Your task to perform on an android device: Search for alienware area 51 on ebay, select the first entry, and add it to the cart. Image 0: 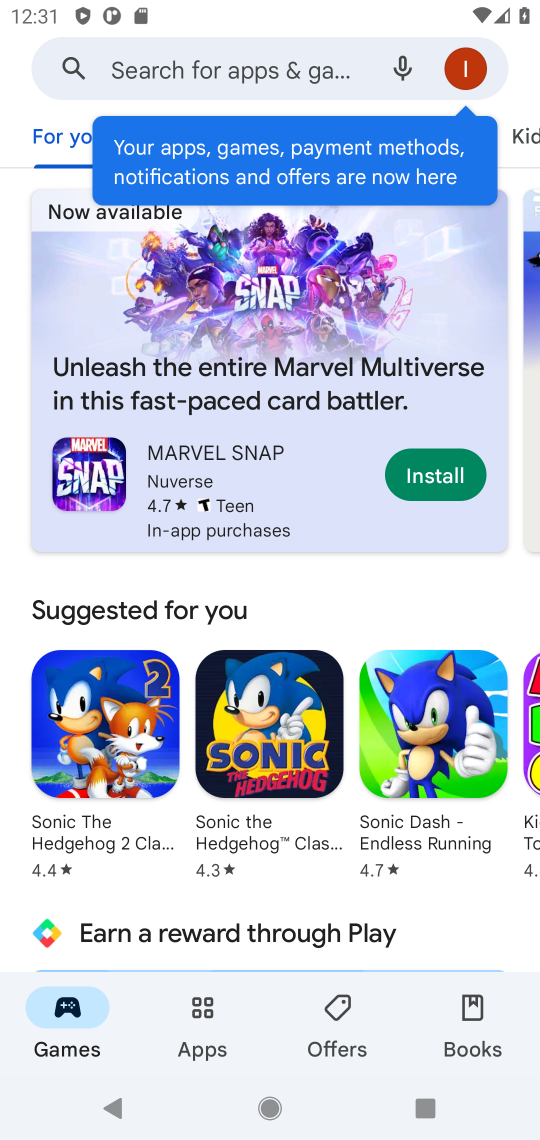
Step 0: press home button
Your task to perform on an android device: Search for alienware area 51 on ebay, select the first entry, and add it to the cart. Image 1: 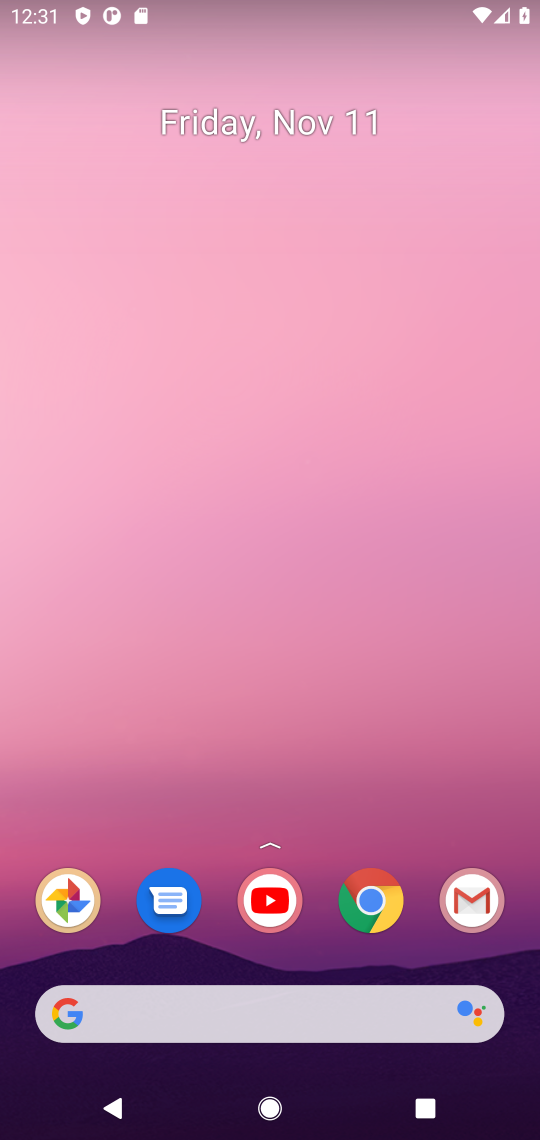
Step 1: click (387, 893)
Your task to perform on an android device: Search for alienware area 51 on ebay, select the first entry, and add it to the cart. Image 2: 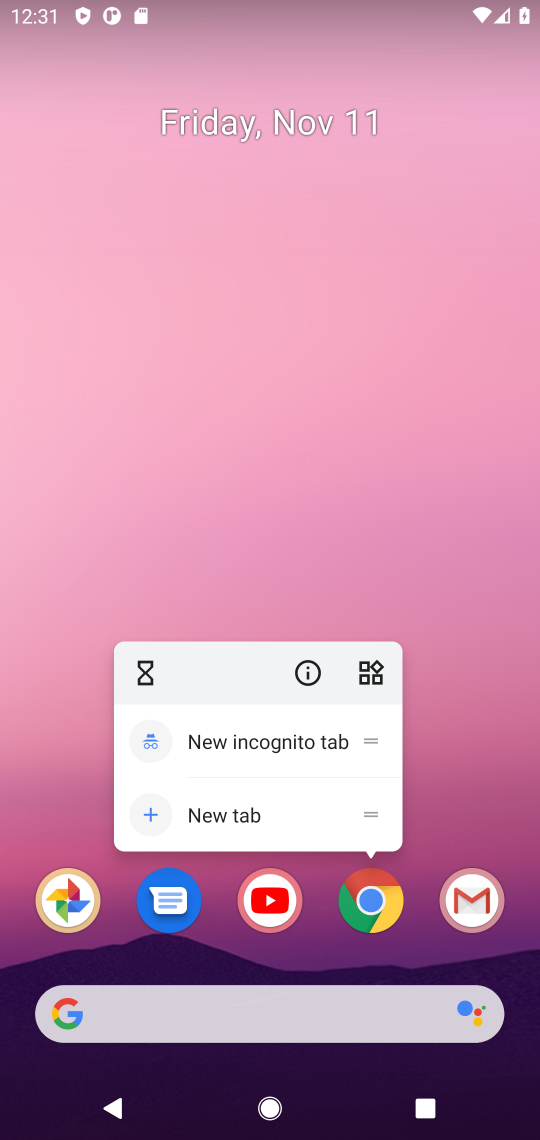
Step 2: click (371, 899)
Your task to perform on an android device: Search for alienware area 51 on ebay, select the first entry, and add it to the cart. Image 3: 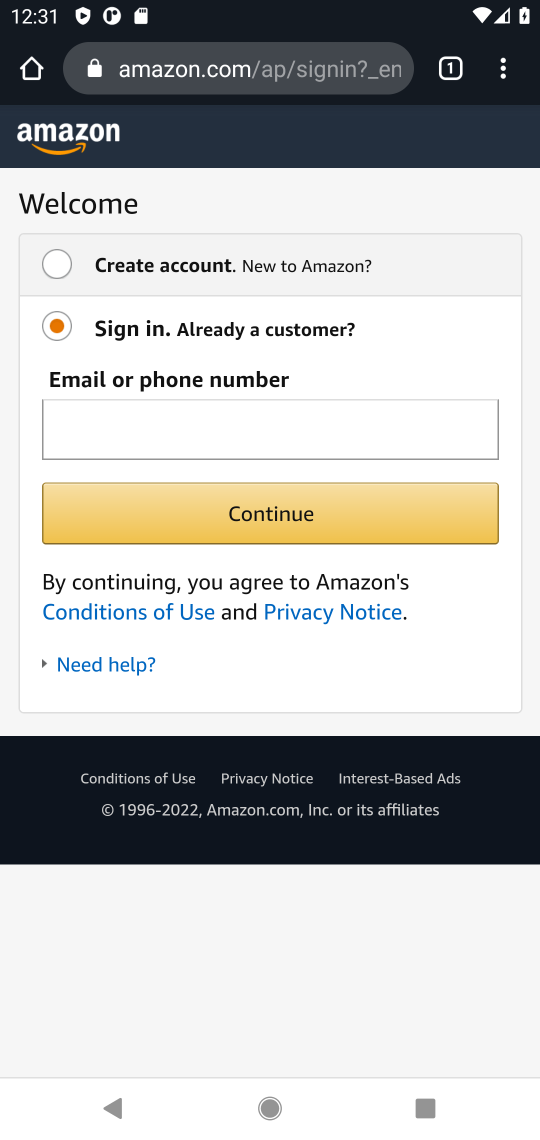
Step 3: click (310, 60)
Your task to perform on an android device: Search for alienware area 51 on ebay, select the first entry, and add it to the cart. Image 4: 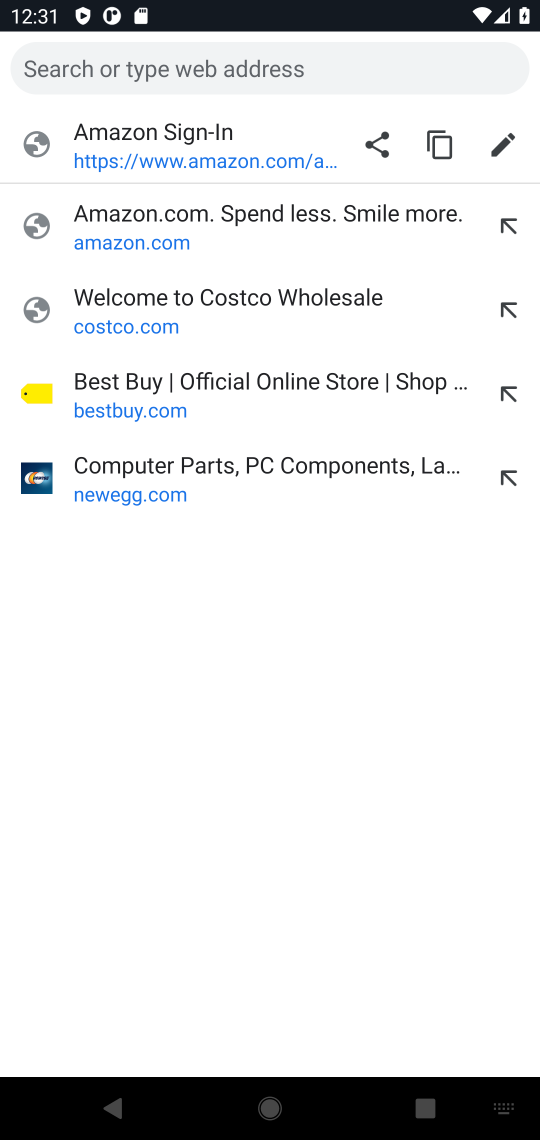
Step 4: press enter
Your task to perform on an android device: Search for alienware area 51 on ebay, select the first entry, and add it to the cart. Image 5: 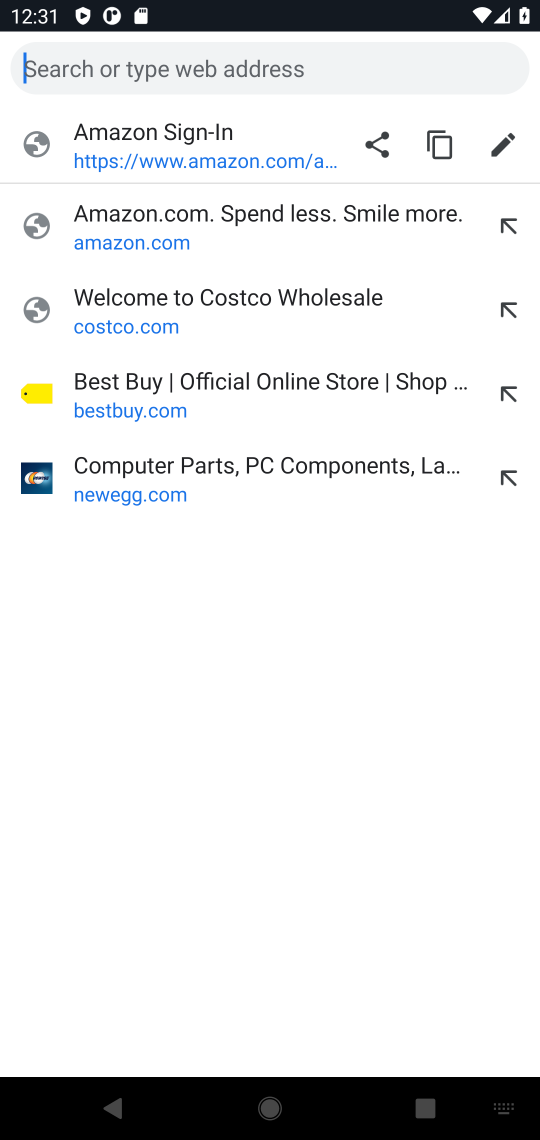
Step 5: type "ebay"
Your task to perform on an android device: Search for alienware area 51 on ebay, select the first entry, and add it to the cart. Image 6: 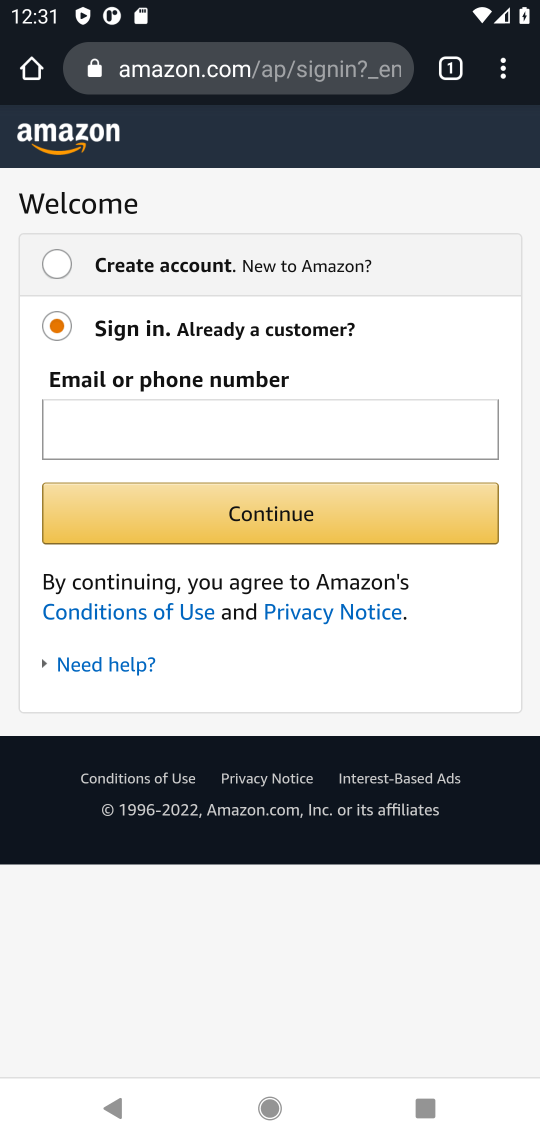
Step 6: click (298, 49)
Your task to perform on an android device: Search for alienware area 51 on ebay, select the first entry, and add it to the cart. Image 7: 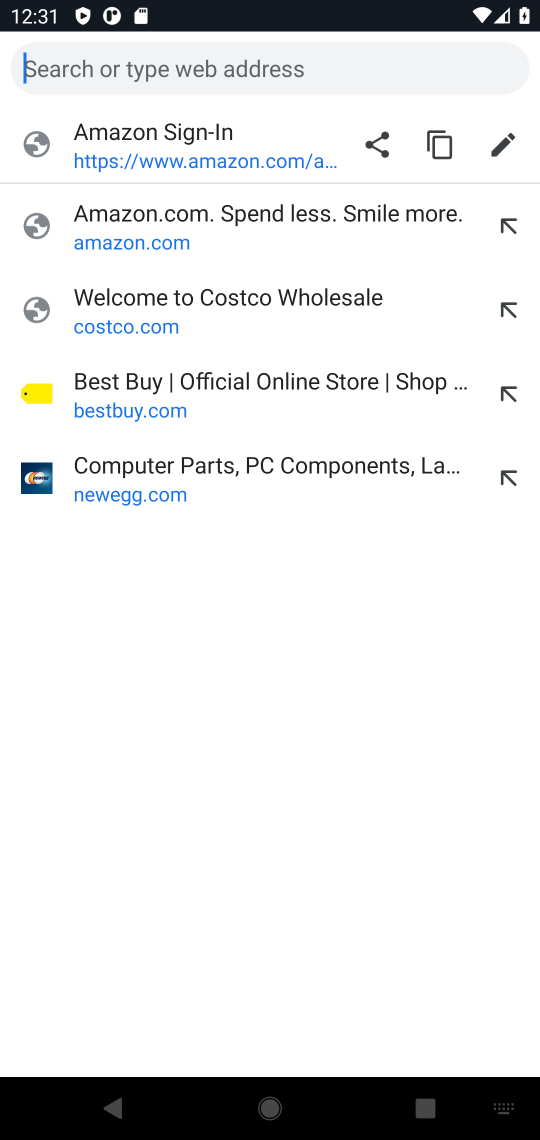
Step 7: type "ebay"
Your task to perform on an android device: Search for alienware area 51 on ebay, select the first entry, and add it to the cart. Image 8: 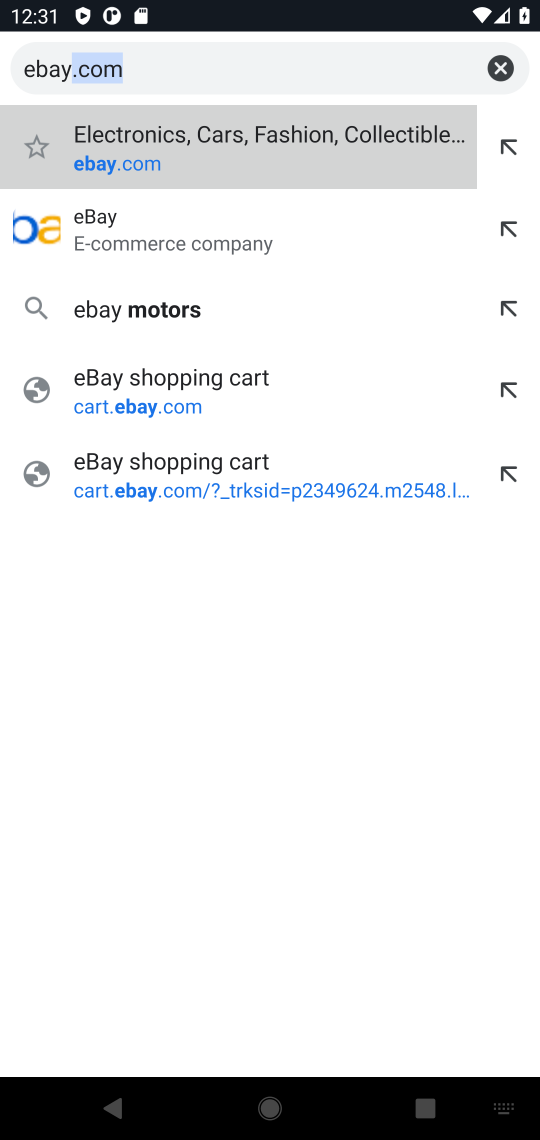
Step 8: press enter
Your task to perform on an android device: Search for alienware area 51 on ebay, select the first entry, and add it to the cart. Image 9: 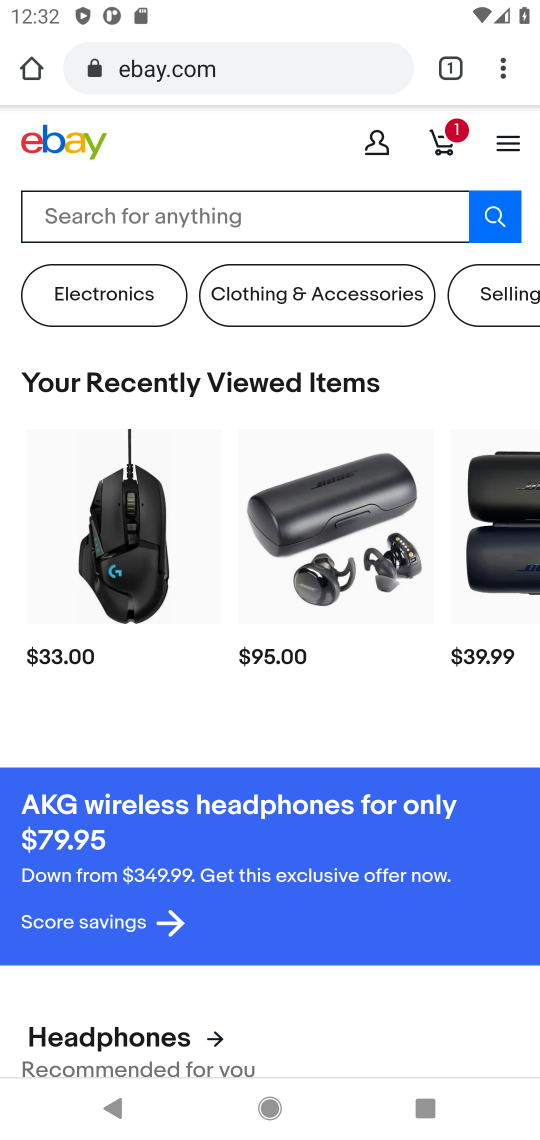
Step 9: click (221, 209)
Your task to perform on an android device: Search for alienware area 51 on ebay, select the first entry, and add it to the cart. Image 10: 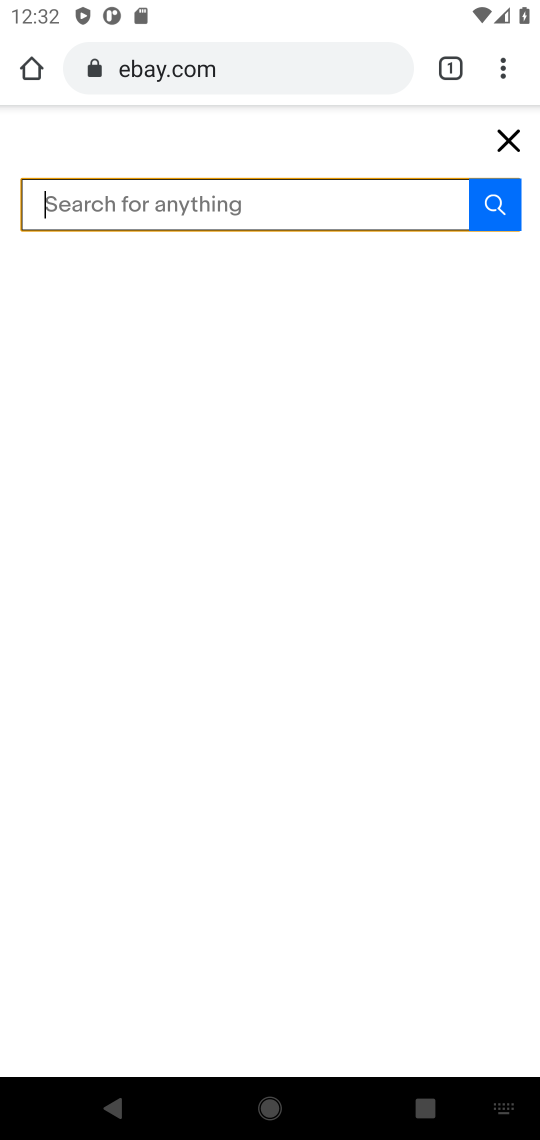
Step 10: type " alienware area 51"
Your task to perform on an android device: Search for alienware area 51 on ebay, select the first entry, and add it to the cart. Image 11: 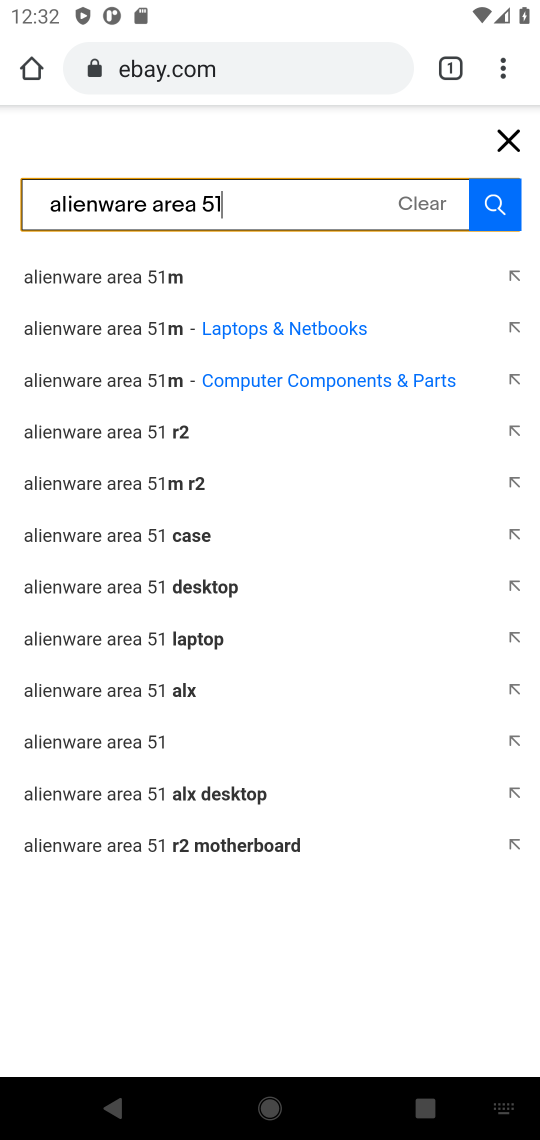
Step 11: press enter
Your task to perform on an android device: Search for alienware area 51 on ebay, select the first entry, and add it to the cart. Image 12: 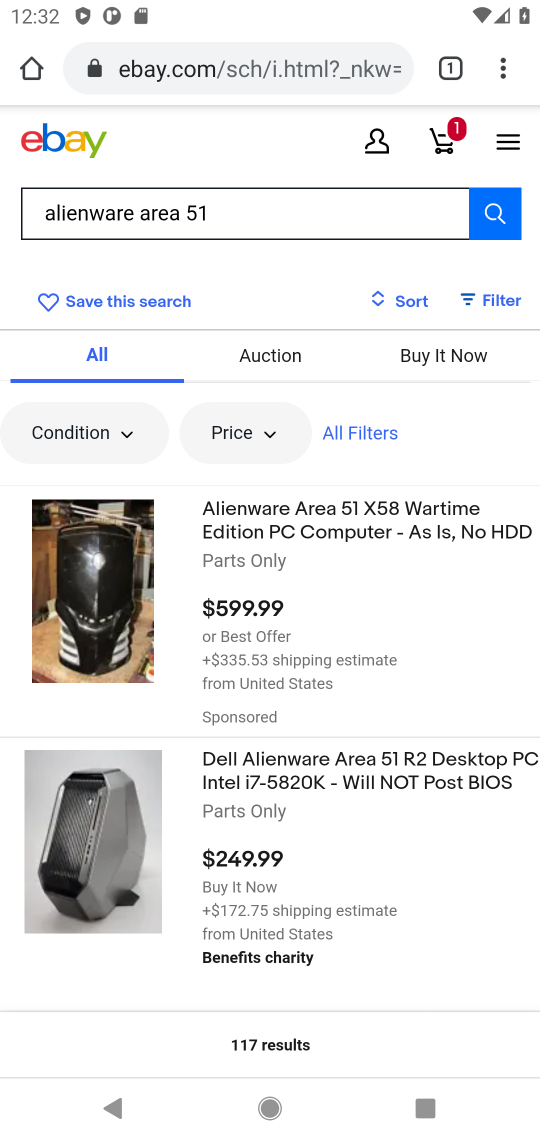
Step 12: click (299, 520)
Your task to perform on an android device: Search for alienware area 51 on ebay, select the first entry, and add it to the cart. Image 13: 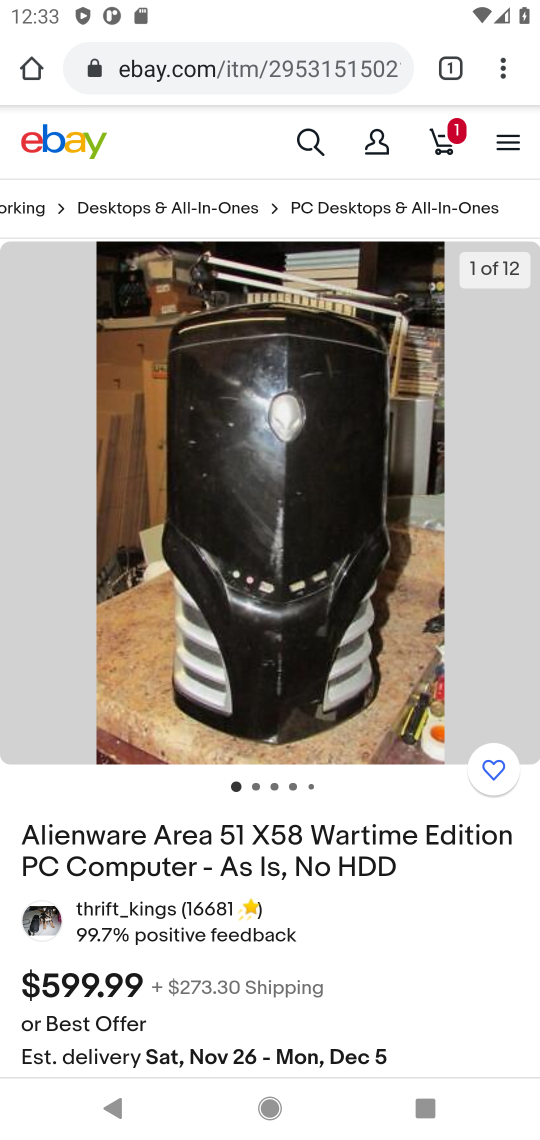
Step 13: drag from (266, 934) to (538, 104)
Your task to perform on an android device: Search for alienware area 51 on ebay, select the first entry, and add it to the cart. Image 14: 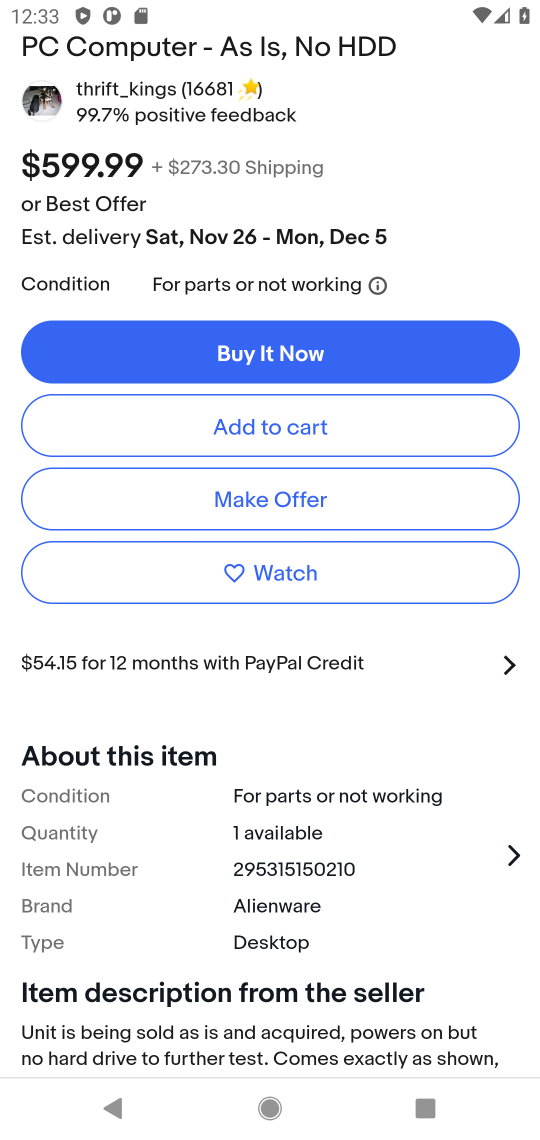
Step 14: click (261, 432)
Your task to perform on an android device: Search for alienware area 51 on ebay, select the first entry, and add it to the cart. Image 15: 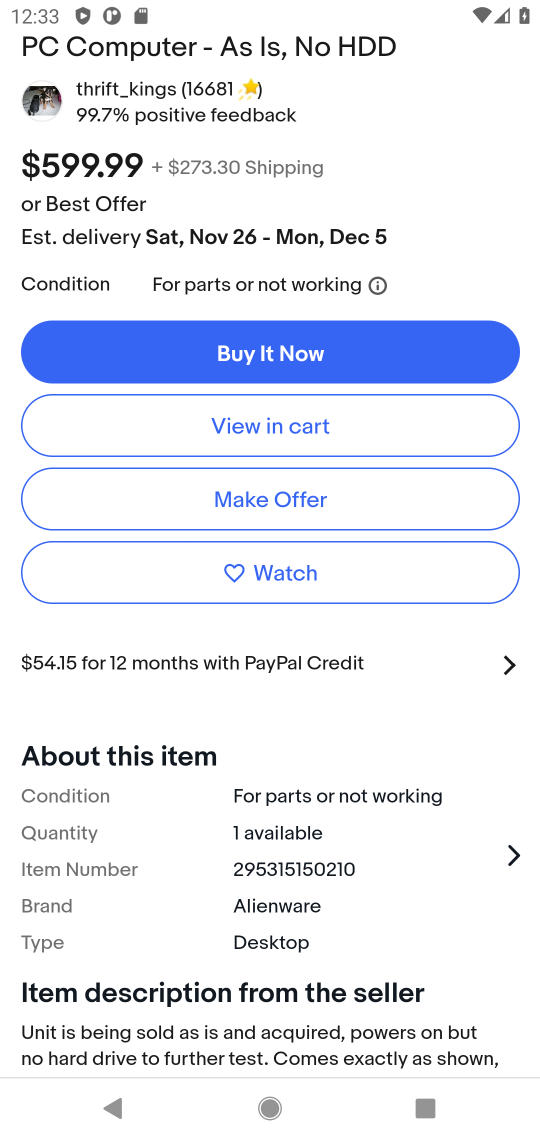
Step 15: click (270, 422)
Your task to perform on an android device: Search for alienware area 51 on ebay, select the first entry, and add it to the cart. Image 16: 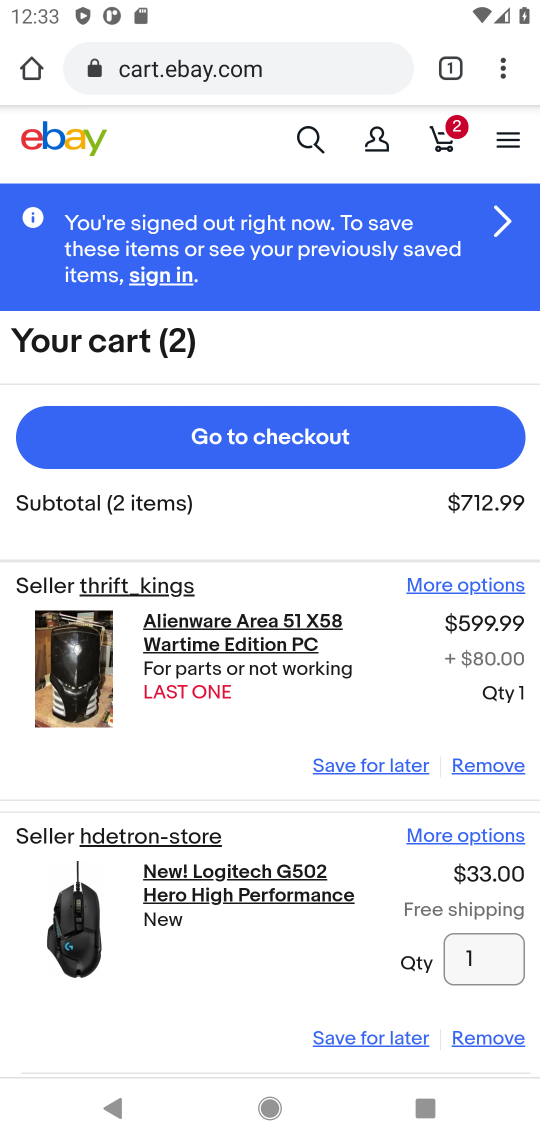
Step 16: click (496, 1034)
Your task to perform on an android device: Search for alienware area 51 on ebay, select the first entry, and add it to the cart. Image 17: 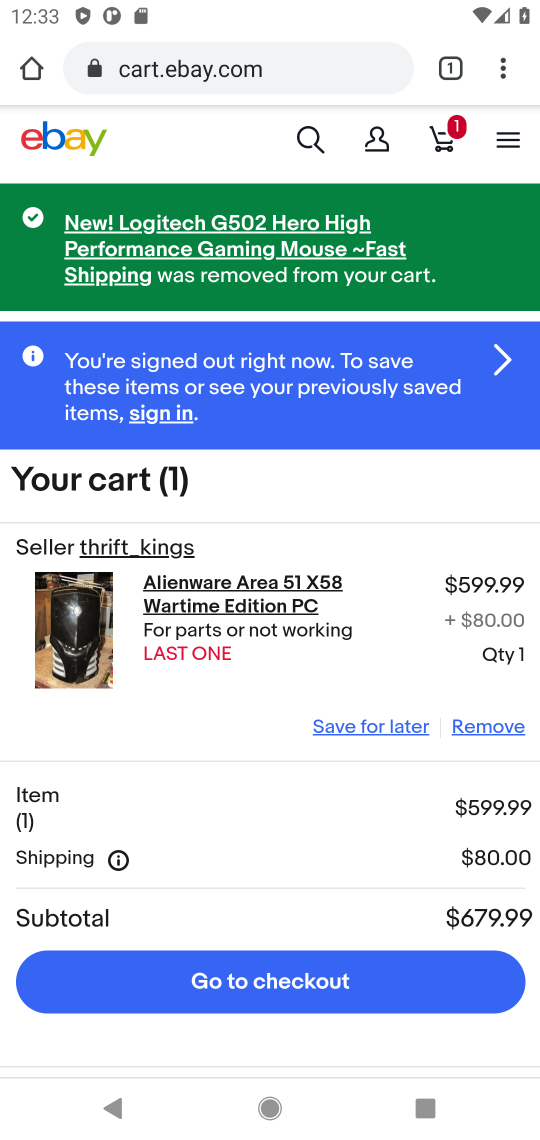
Step 17: task complete